Your task to perform on an android device: Add acer predator to the cart on costco.com Image 0: 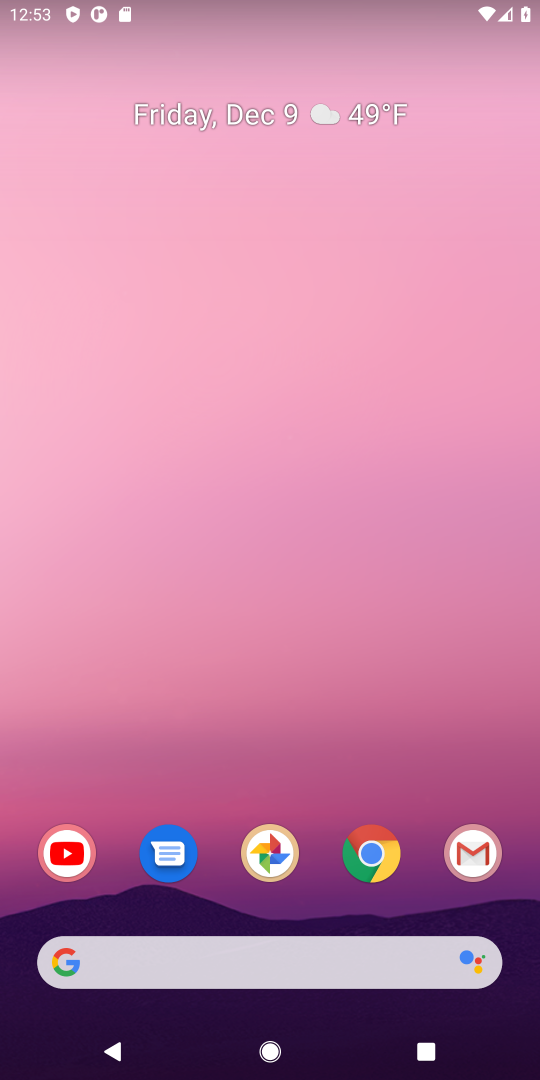
Step 0: drag from (252, 945) to (275, 342)
Your task to perform on an android device: Add acer predator to the cart on costco.com Image 1: 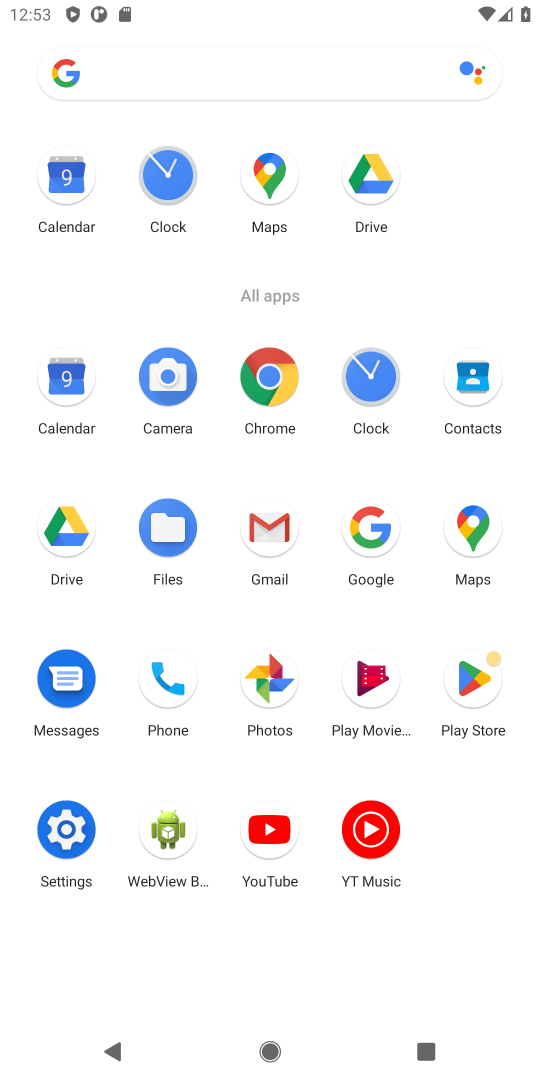
Step 1: click (368, 531)
Your task to perform on an android device: Add acer predator to the cart on costco.com Image 2: 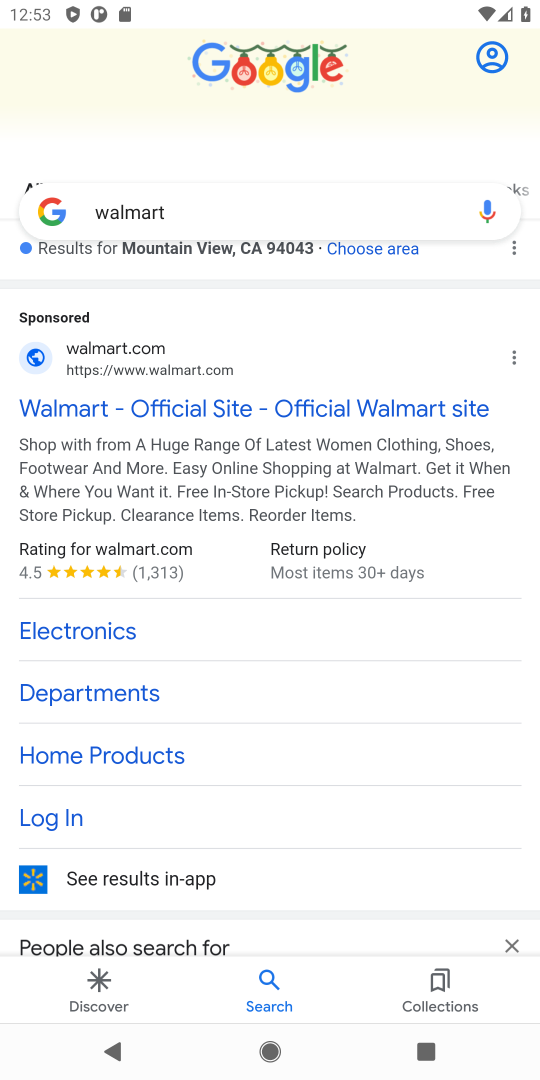
Step 2: click (181, 206)
Your task to perform on an android device: Add acer predator to the cart on costco.com Image 3: 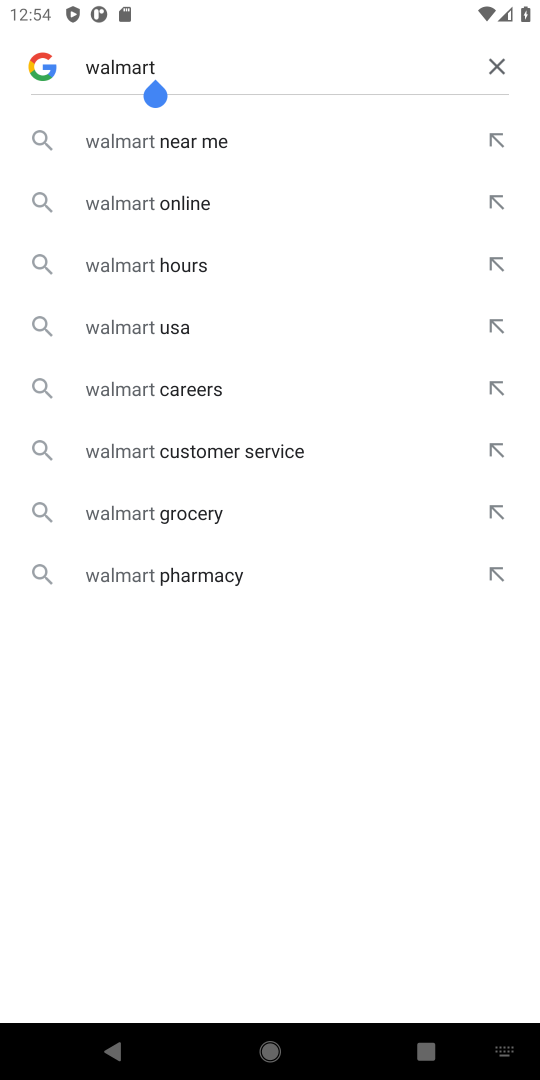
Step 3: click (495, 63)
Your task to perform on an android device: Add acer predator to the cart on costco.com Image 4: 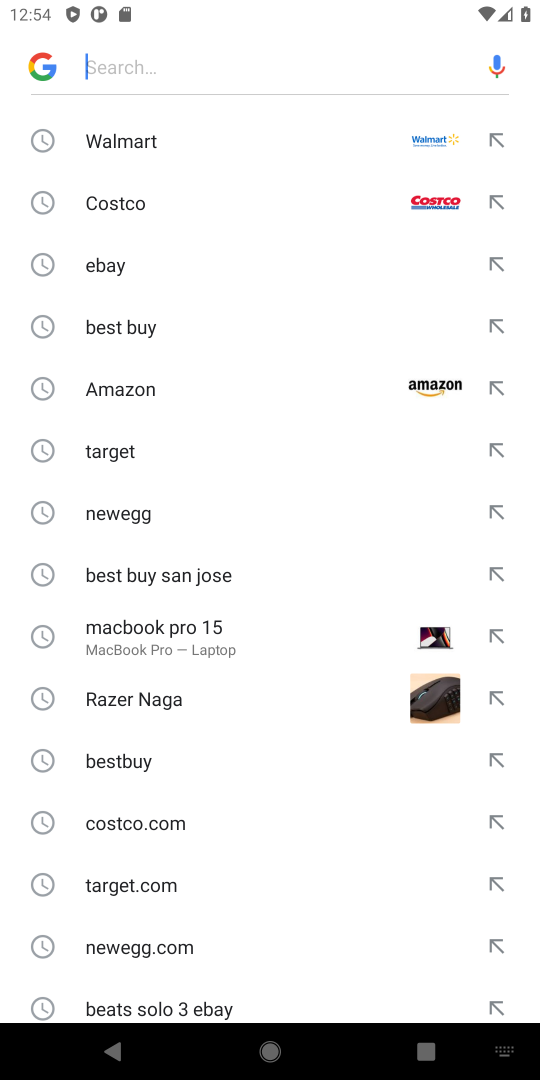
Step 4: click (132, 199)
Your task to perform on an android device: Add acer predator to the cart on costco.com Image 5: 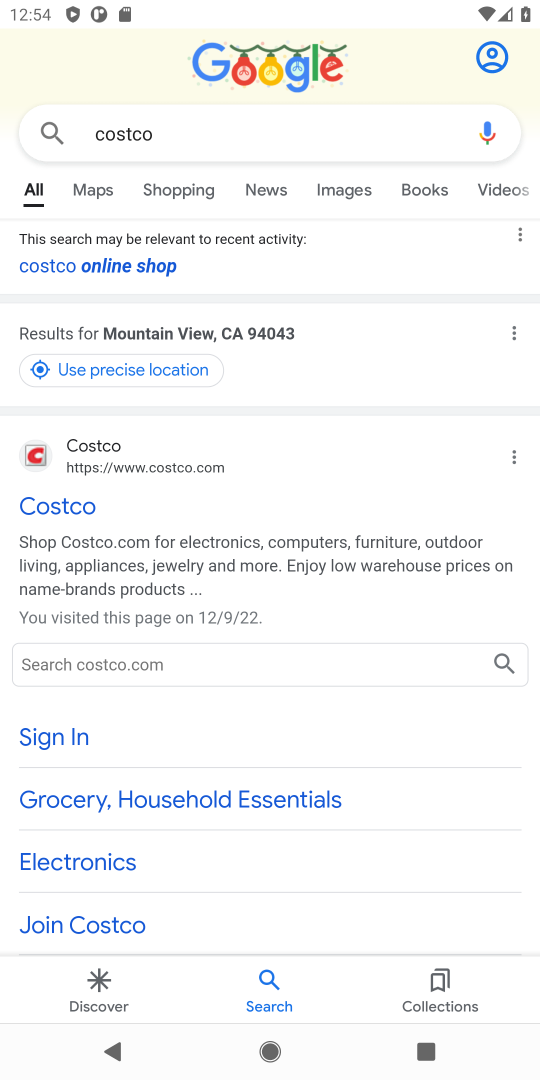
Step 5: click (60, 506)
Your task to perform on an android device: Add acer predator to the cart on costco.com Image 6: 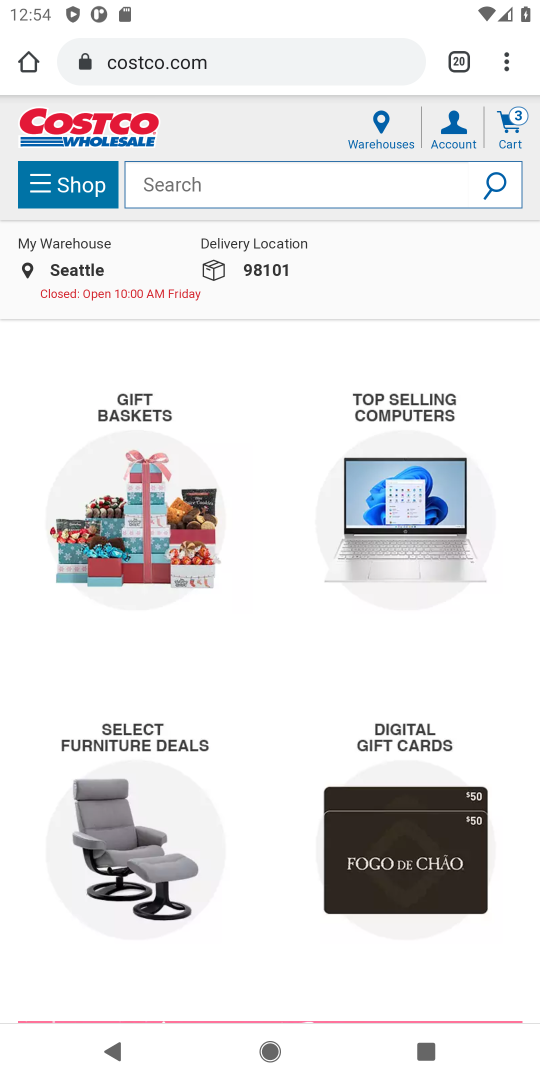
Step 6: click (213, 183)
Your task to perform on an android device: Add acer predator to the cart on costco.com Image 7: 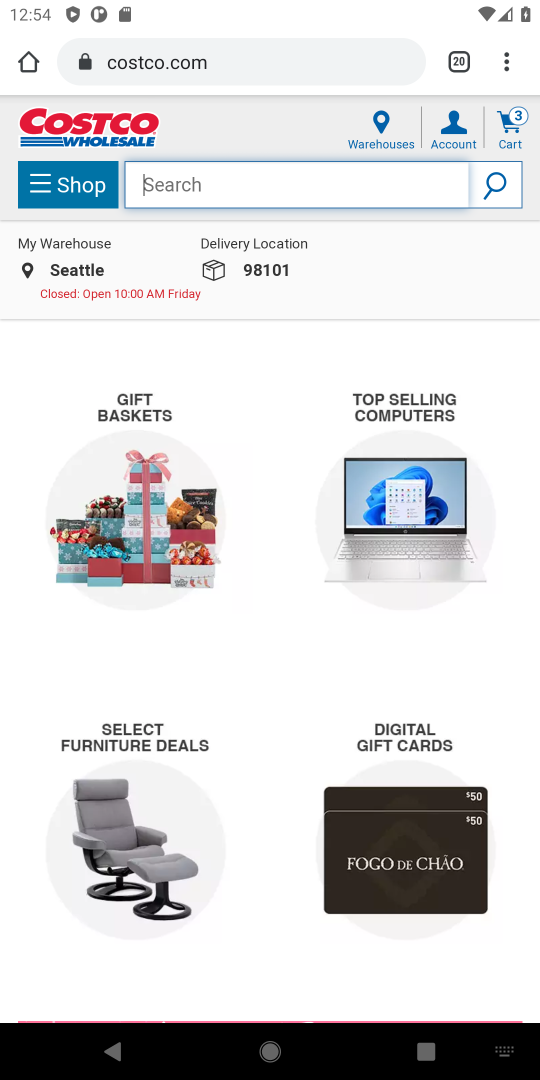
Step 7: type "acer predator"
Your task to perform on an android device: Add acer predator to the cart on costco.com Image 8: 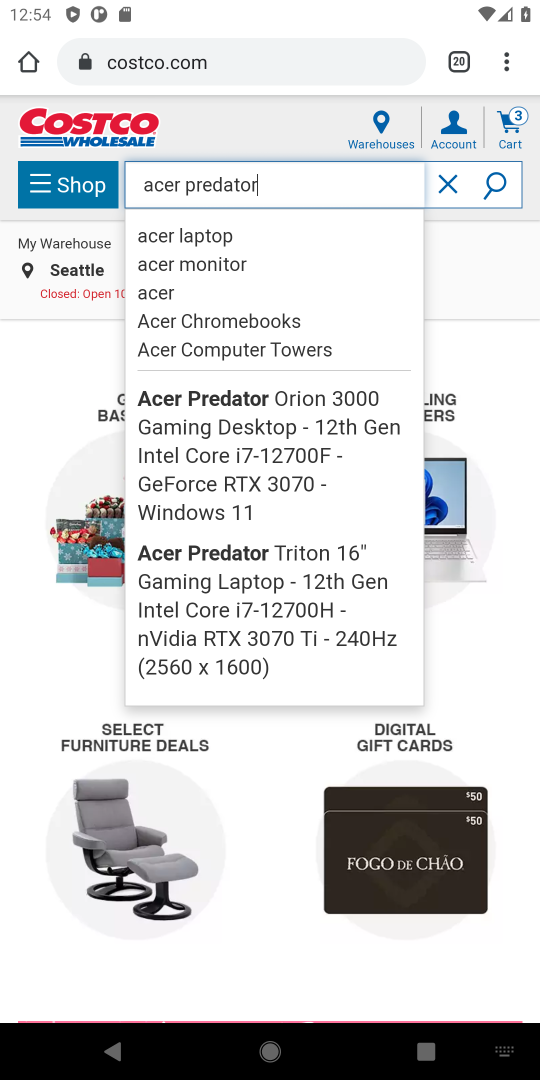
Step 8: click (503, 176)
Your task to perform on an android device: Add acer predator to the cart on costco.com Image 9: 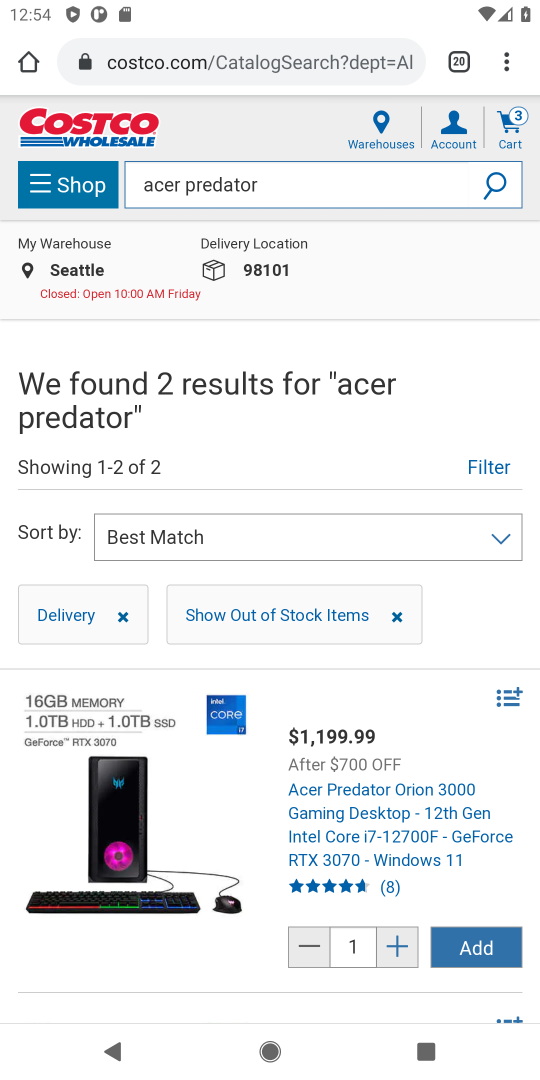
Step 9: click (483, 942)
Your task to perform on an android device: Add acer predator to the cart on costco.com Image 10: 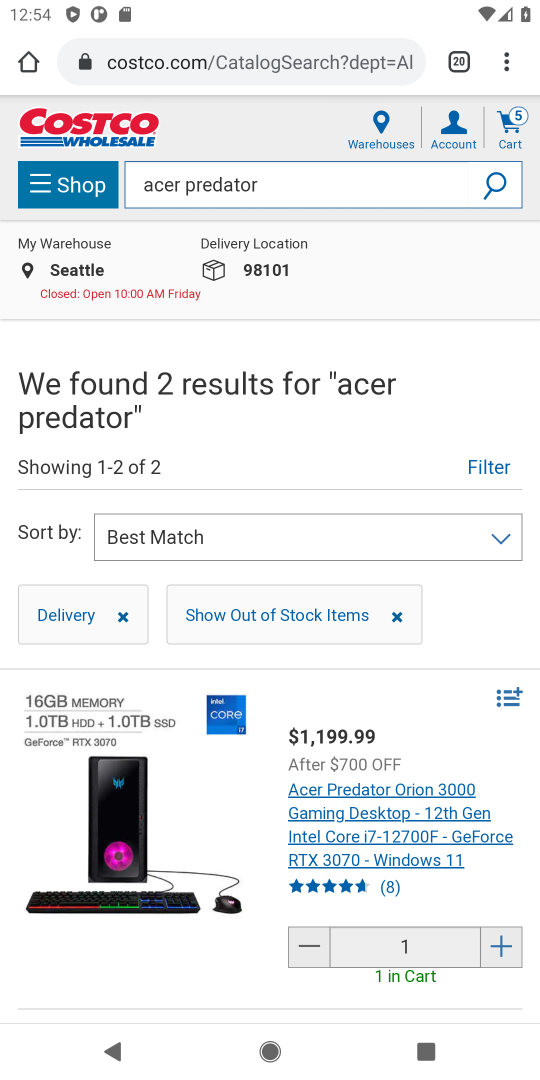
Step 10: click (523, 112)
Your task to perform on an android device: Add acer predator to the cart on costco.com Image 11: 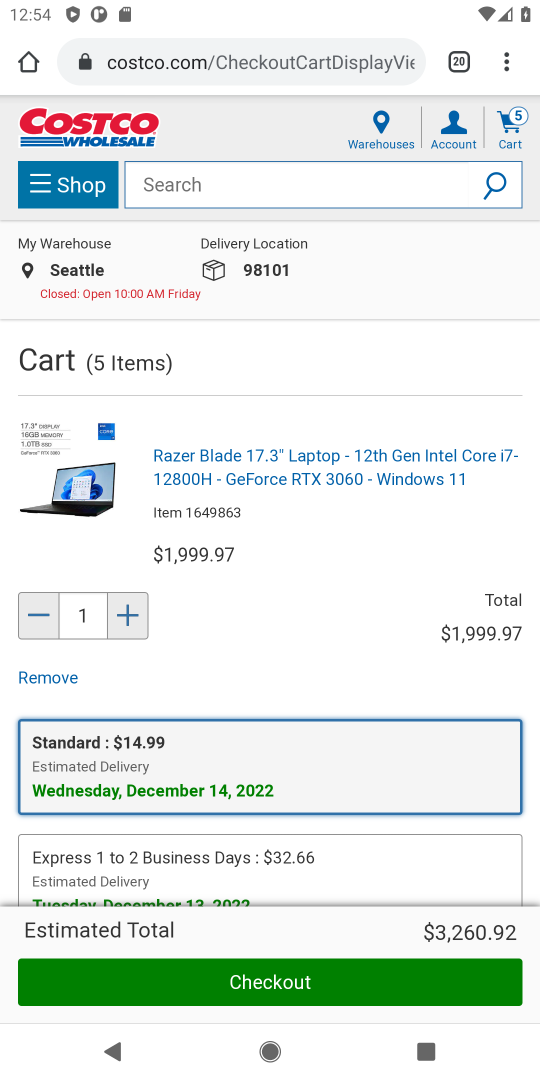
Step 11: click (259, 979)
Your task to perform on an android device: Add acer predator to the cart on costco.com Image 12: 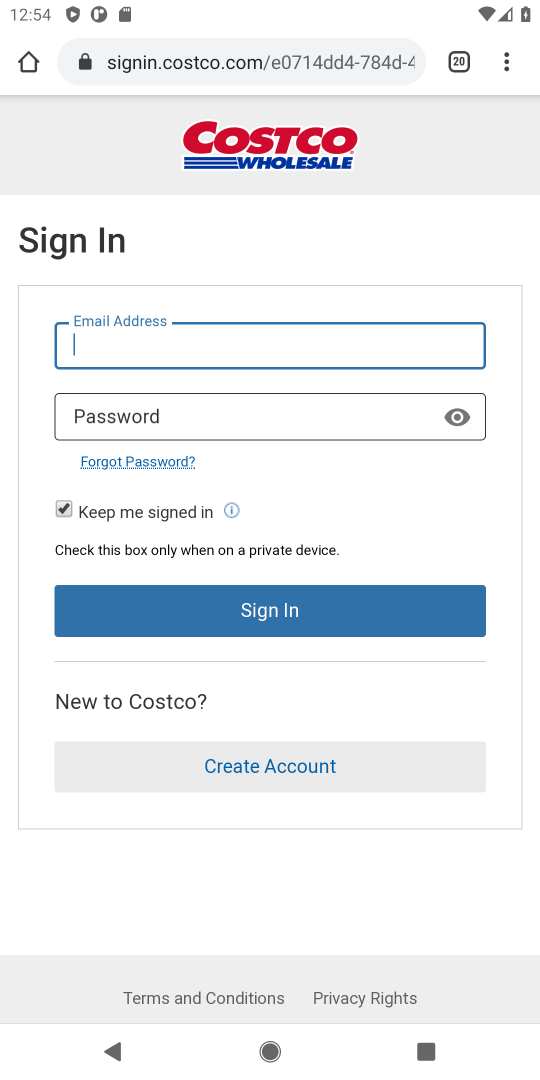
Step 12: task complete